Your task to perform on an android device: Open Wikipedia Image 0: 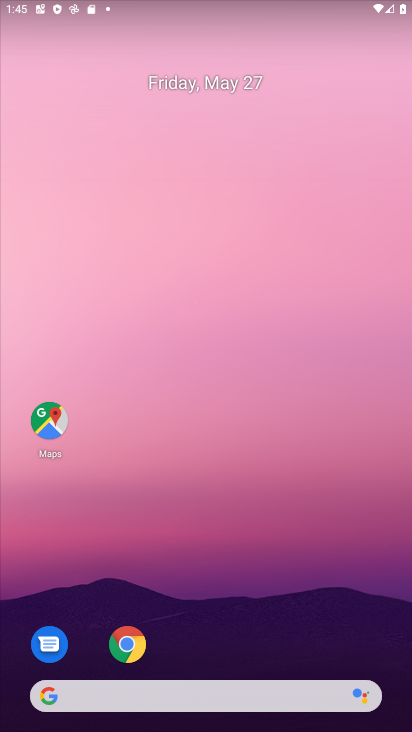
Step 0: drag from (328, 650) to (293, 1)
Your task to perform on an android device: Open Wikipedia Image 1: 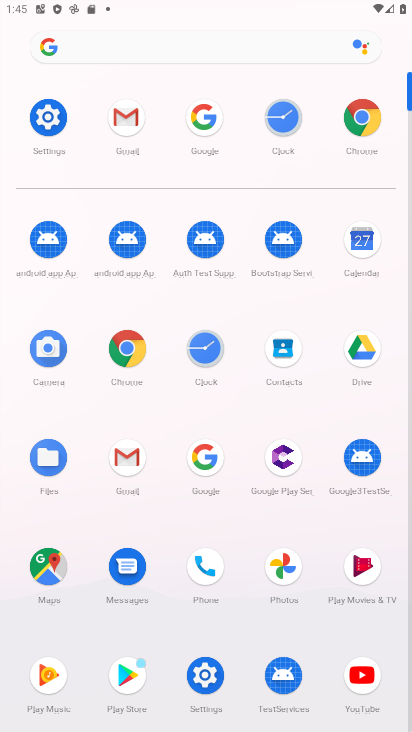
Step 1: click (205, 116)
Your task to perform on an android device: Open Wikipedia Image 2: 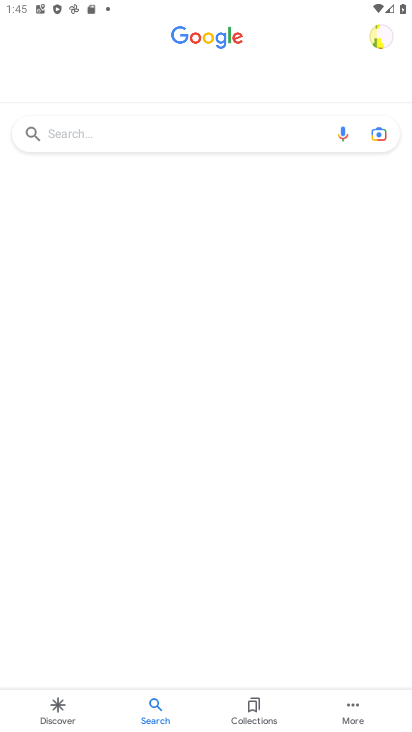
Step 2: click (148, 132)
Your task to perform on an android device: Open Wikipedia Image 3: 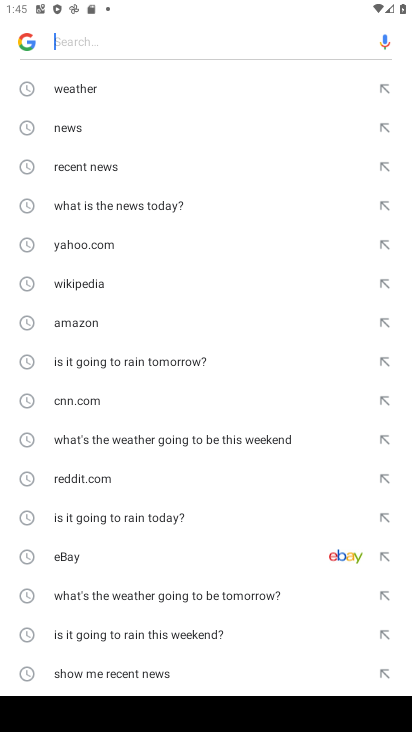
Step 3: click (107, 280)
Your task to perform on an android device: Open Wikipedia Image 4: 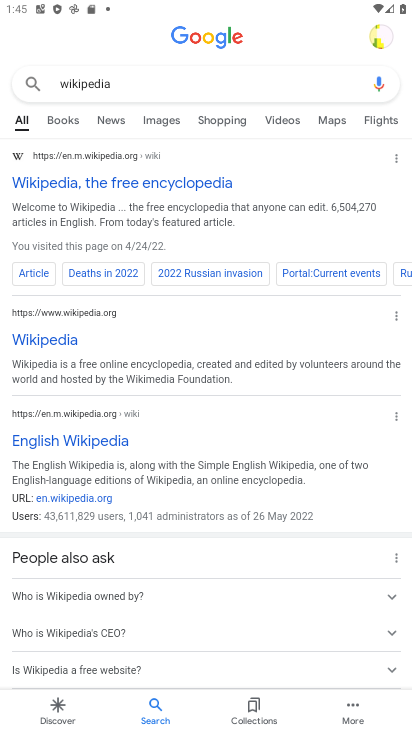
Step 4: task complete